Your task to perform on an android device: turn off notifications settings in the gmail app Image 0: 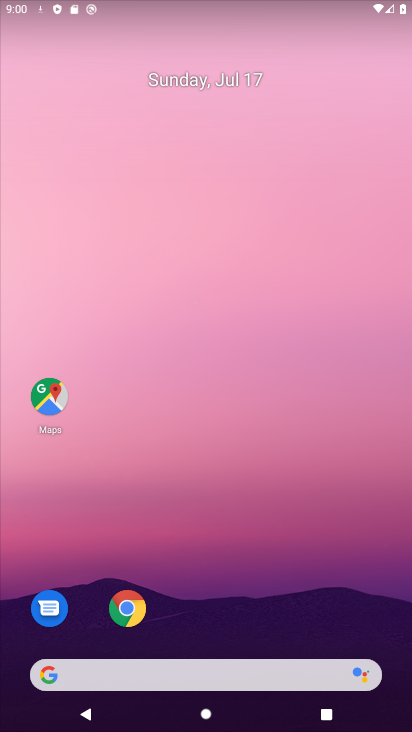
Step 0: drag from (281, 701) to (227, 190)
Your task to perform on an android device: turn off notifications settings in the gmail app Image 1: 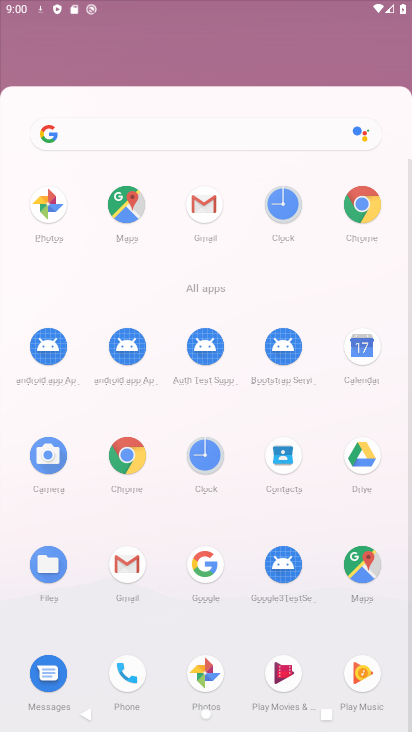
Step 1: drag from (271, 673) to (257, 564)
Your task to perform on an android device: turn off notifications settings in the gmail app Image 2: 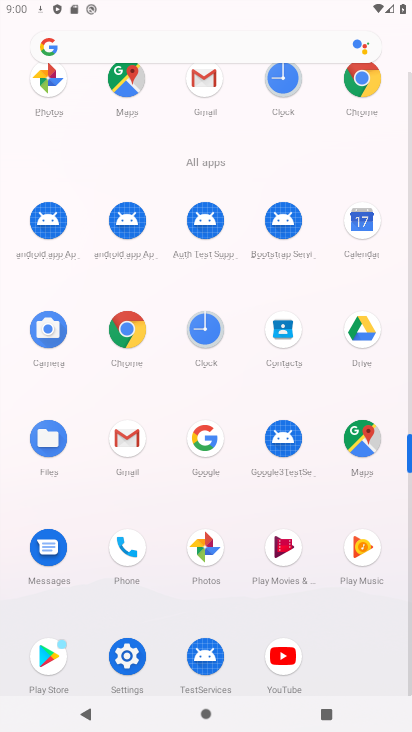
Step 2: click (124, 652)
Your task to perform on an android device: turn off notifications settings in the gmail app Image 3: 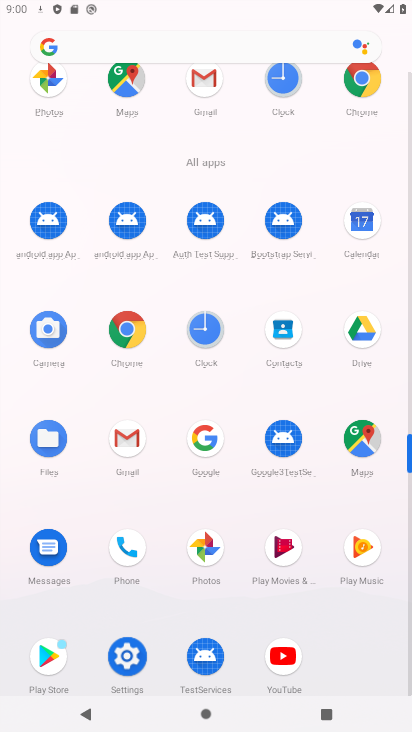
Step 3: click (122, 653)
Your task to perform on an android device: turn off notifications settings in the gmail app Image 4: 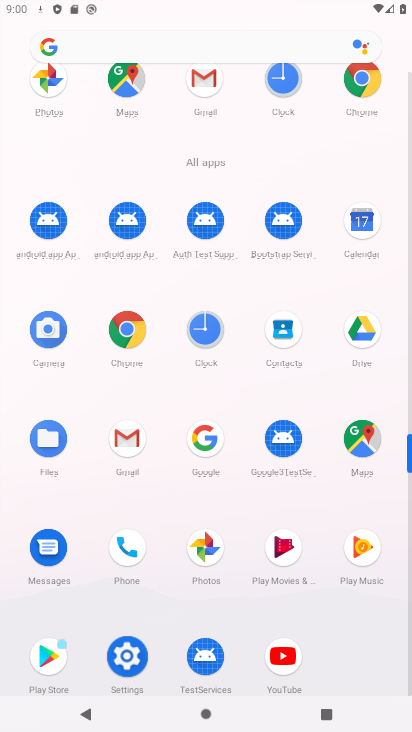
Step 4: click (122, 655)
Your task to perform on an android device: turn off notifications settings in the gmail app Image 5: 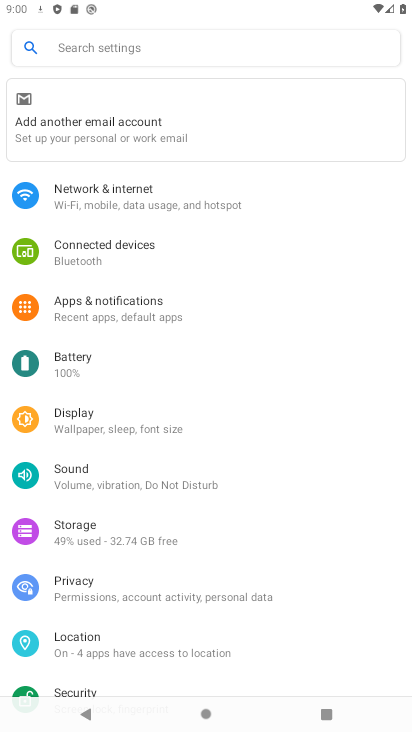
Step 5: click (115, 303)
Your task to perform on an android device: turn off notifications settings in the gmail app Image 6: 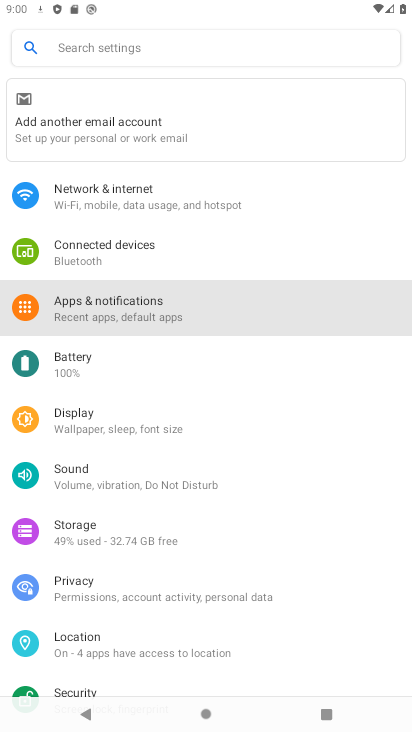
Step 6: click (108, 302)
Your task to perform on an android device: turn off notifications settings in the gmail app Image 7: 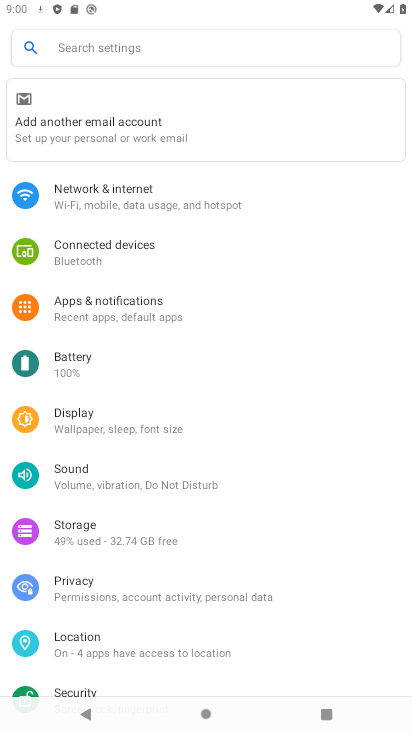
Step 7: click (110, 305)
Your task to perform on an android device: turn off notifications settings in the gmail app Image 8: 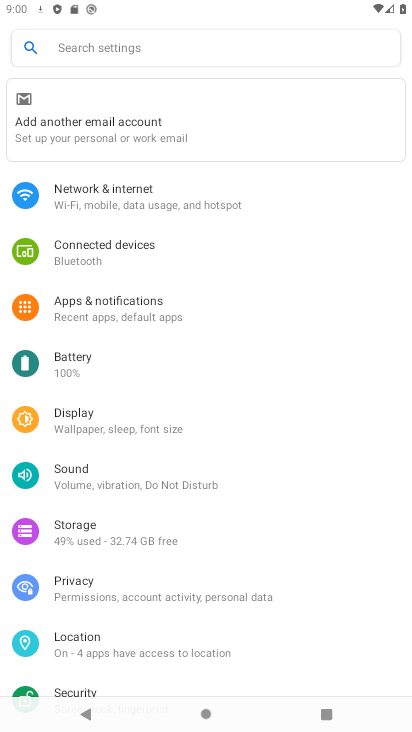
Step 8: click (115, 307)
Your task to perform on an android device: turn off notifications settings in the gmail app Image 9: 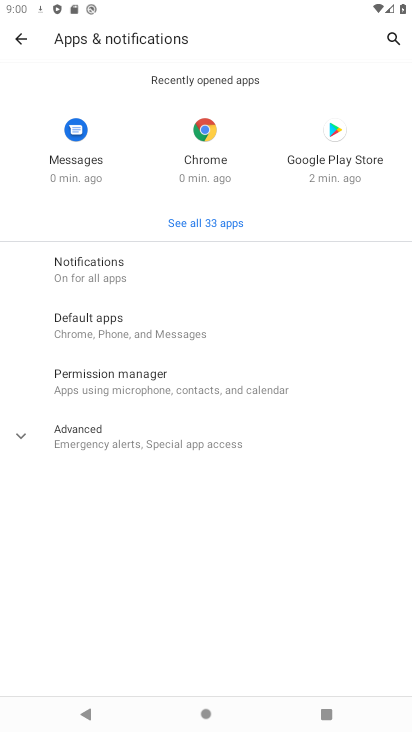
Step 9: click (83, 271)
Your task to perform on an android device: turn off notifications settings in the gmail app Image 10: 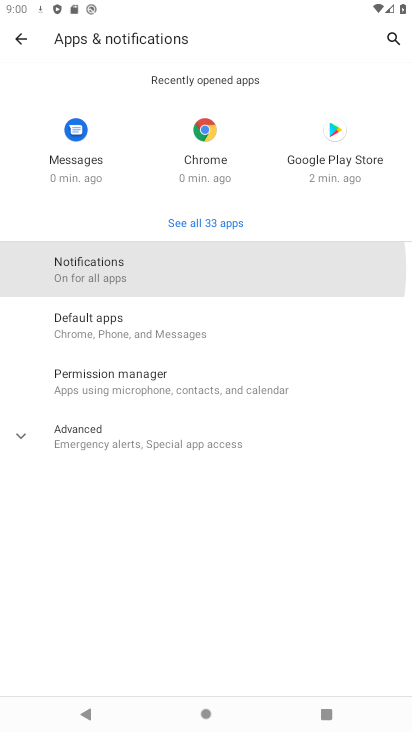
Step 10: click (98, 263)
Your task to perform on an android device: turn off notifications settings in the gmail app Image 11: 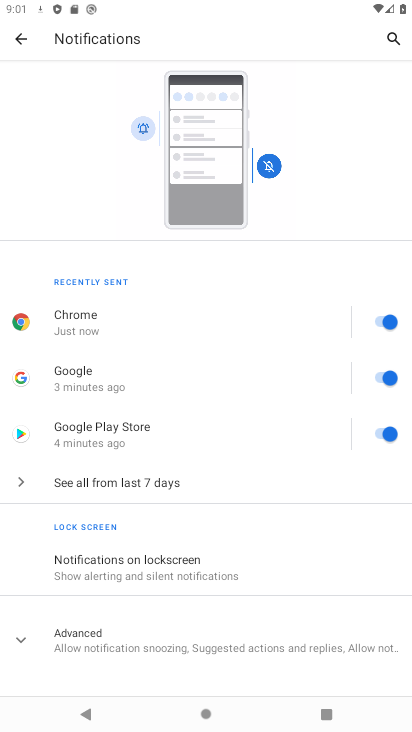
Step 11: click (389, 323)
Your task to perform on an android device: turn off notifications settings in the gmail app Image 12: 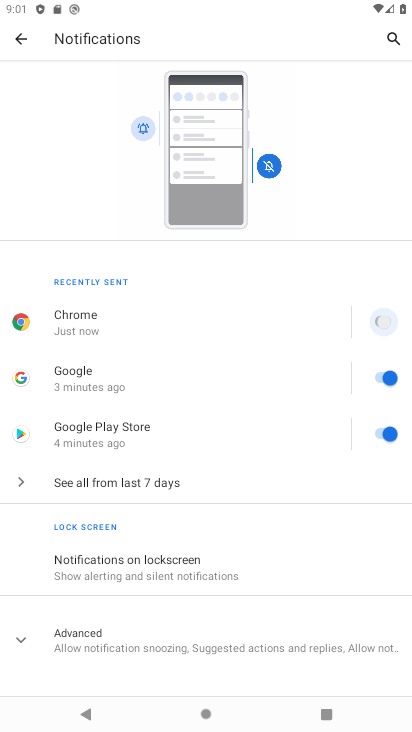
Step 12: drag from (393, 375) to (382, 434)
Your task to perform on an android device: turn off notifications settings in the gmail app Image 13: 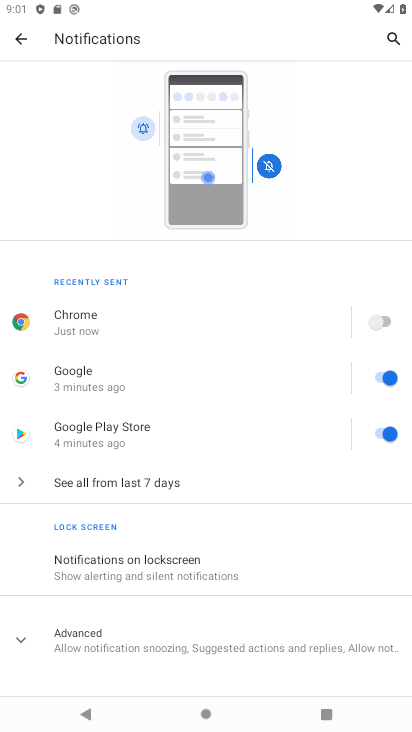
Step 13: click (388, 380)
Your task to perform on an android device: turn off notifications settings in the gmail app Image 14: 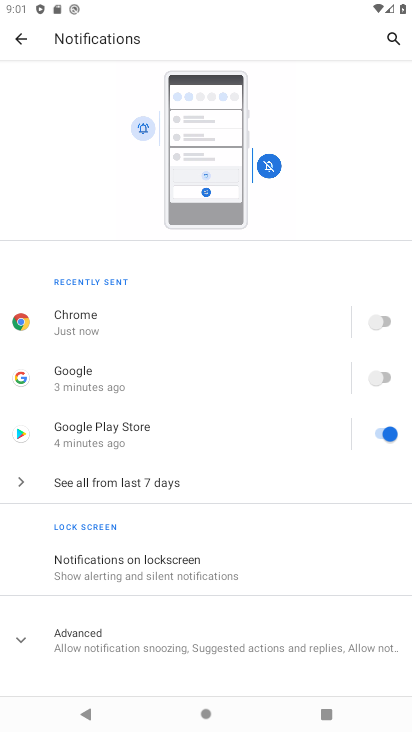
Step 14: click (383, 433)
Your task to perform on an android device: turn off notifications settings in the gmail app Image 15: 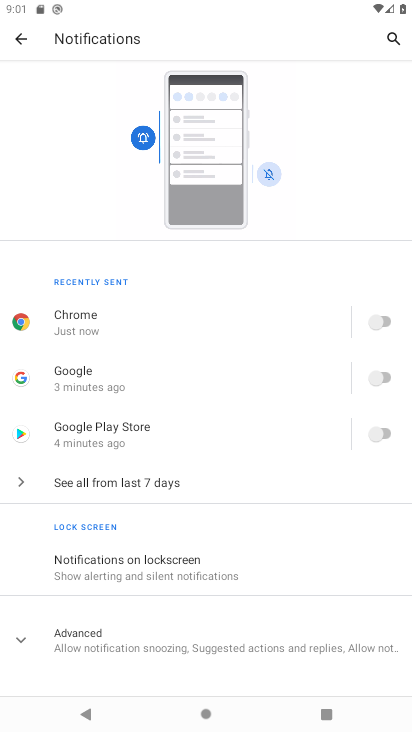
Step 15: task complete